Your task to perform on an android device: toggle notification dots Image 0: 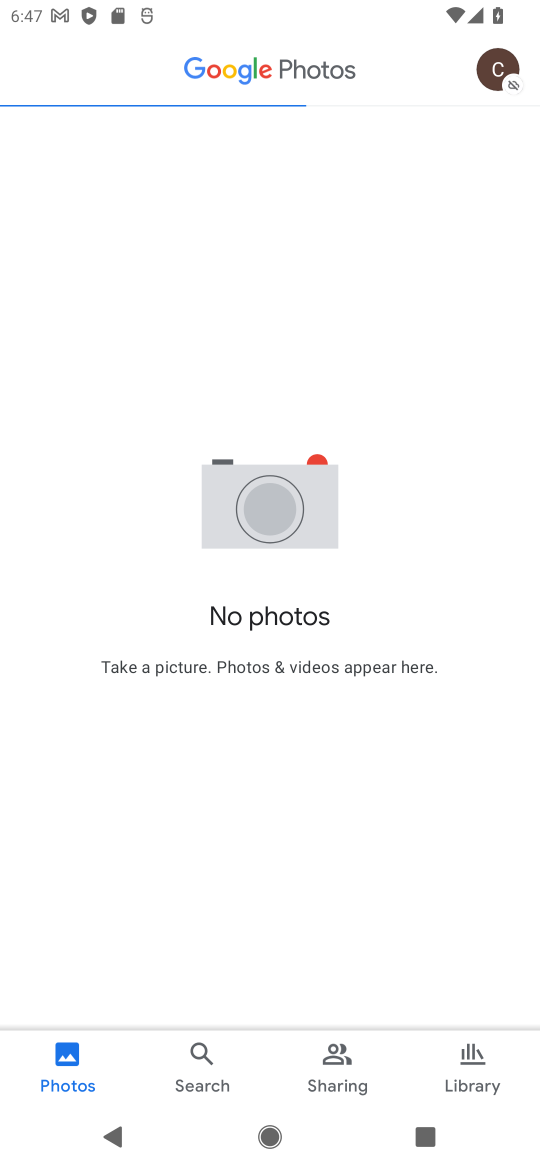
Step 0: press home button
Your task to perform on an android device: toggle notification dots Image 1: 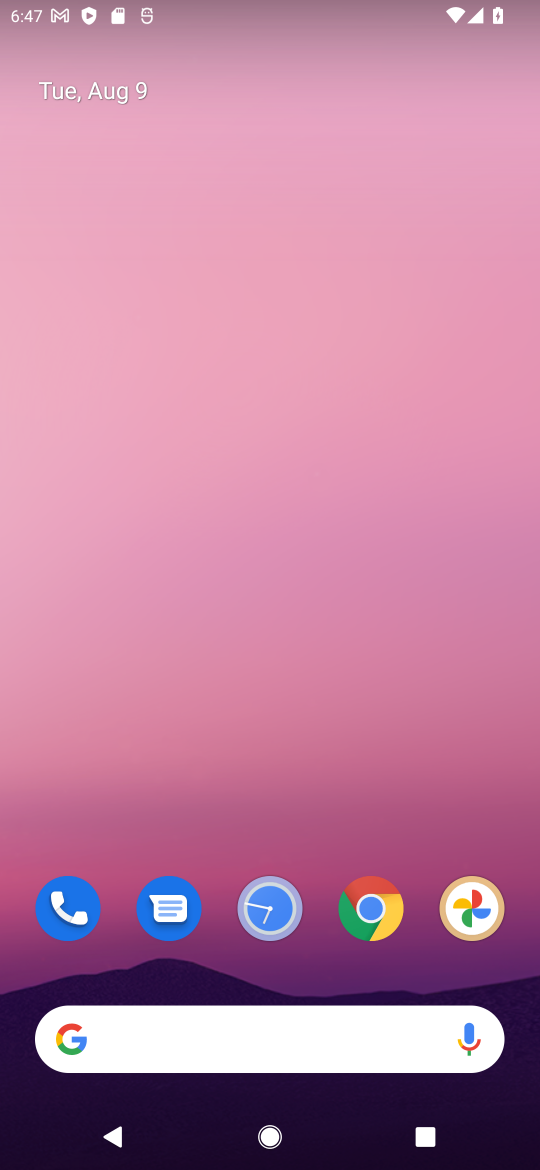
Step 1: drag from (327, 725) to (327, 262)
Your task to perform on an android device: toggle notification dots Image 2: 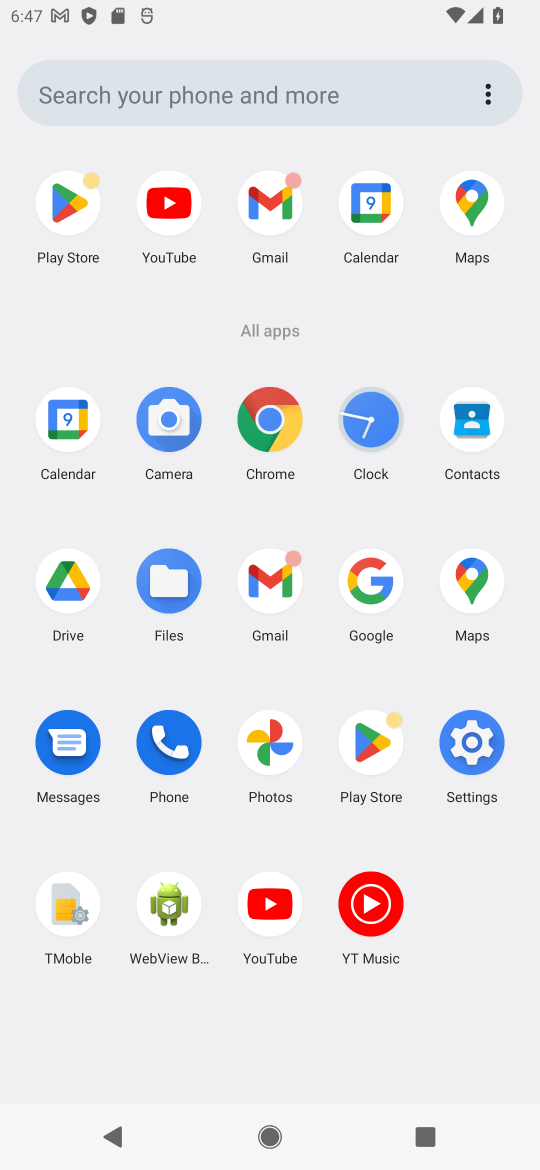
Step 2: click (463, 735)
Your task to perform on an android device: toggle notification dots Image 3: 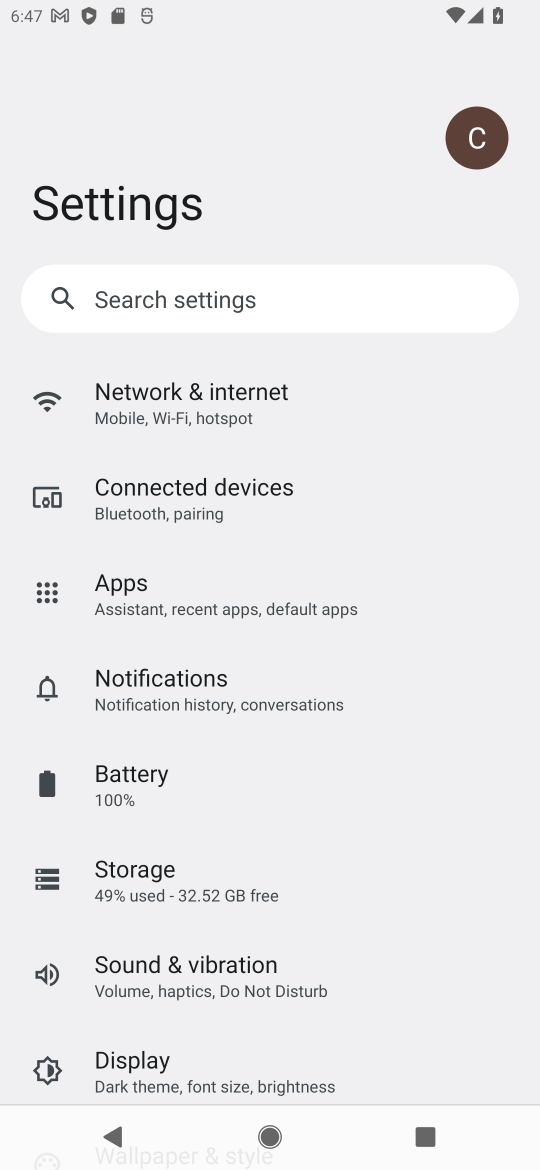
Step 3: click (171, 678)
Your task to perform on an android device: toggle notification dots Image 4: 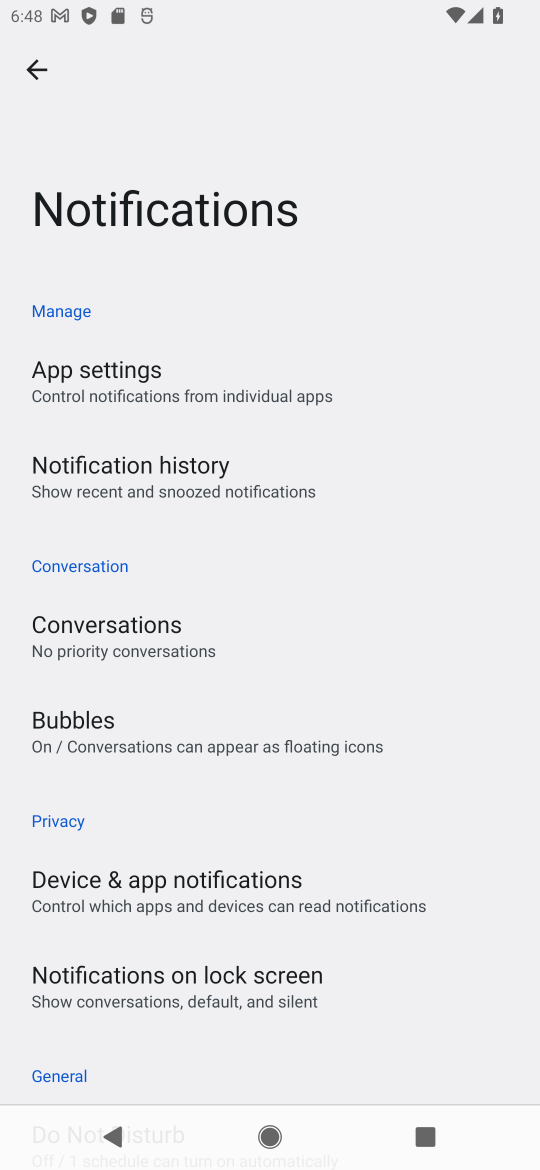
Step 4: task complete